Your task to perform on an android device: refresh tabs in the chrome app Image 0: 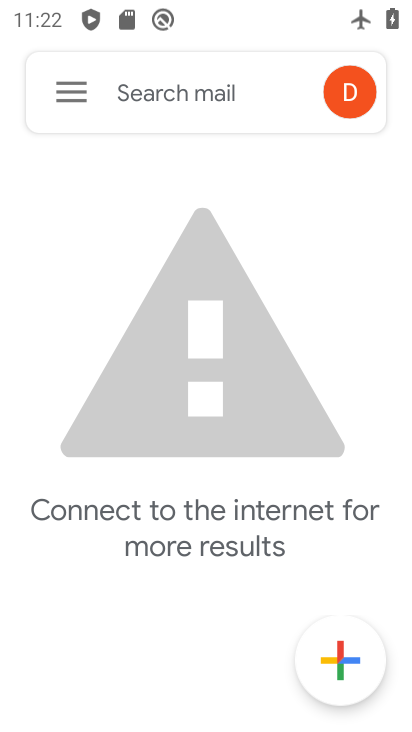
Step 0: press home button
Your task to perform on an android device: refresh tabs in the chrome app Image 1: 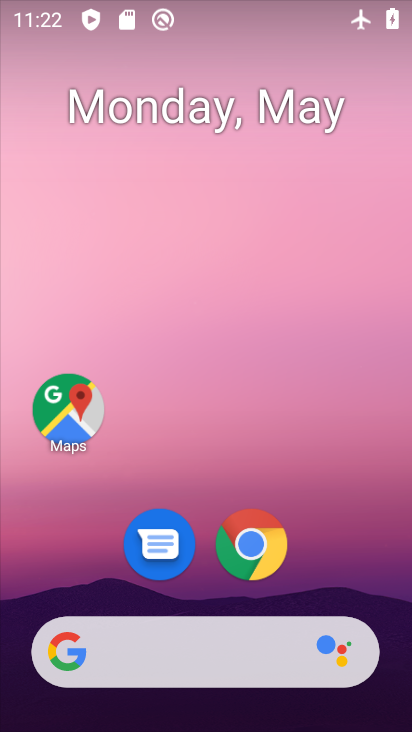
Step 1: click (253, 559)
Your task to perform on an android device: refresh tabs in the chrome app Image 2: 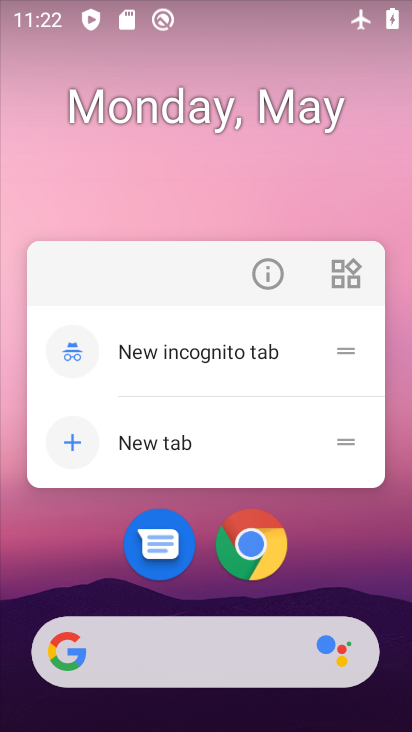
Step 2: click (257, 562)
Your task to perform on an android device: refresh tabs in the chrome app Image 3: 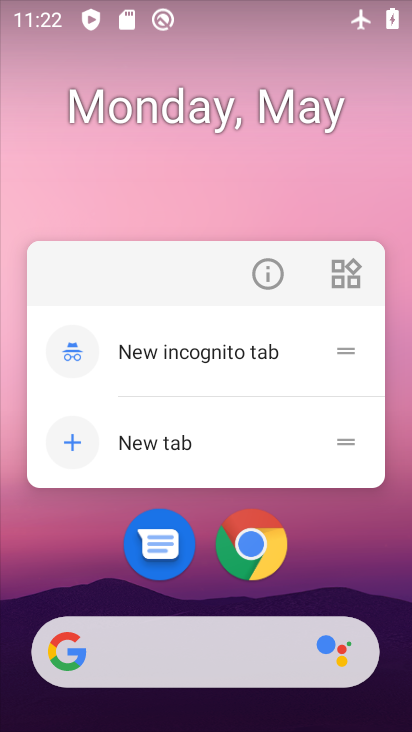
Step 3: click (262, 517)
Your task to perform on an android device: refresh tabs in the chrome app Image 4: 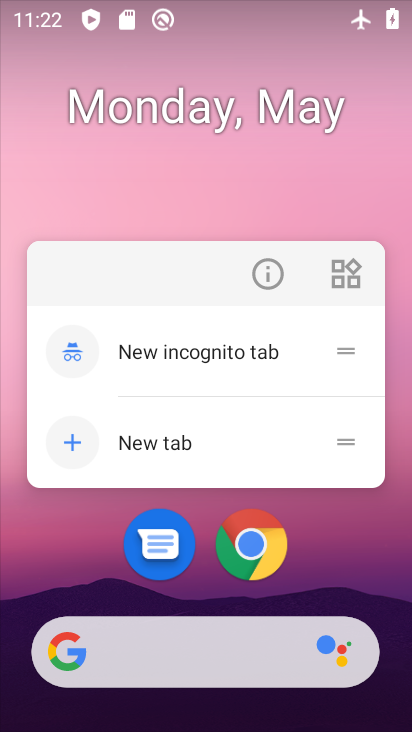
Step 4: click (256, 531)
Your task to perform on an android device: refresh tabs in the chrome app Image 5: 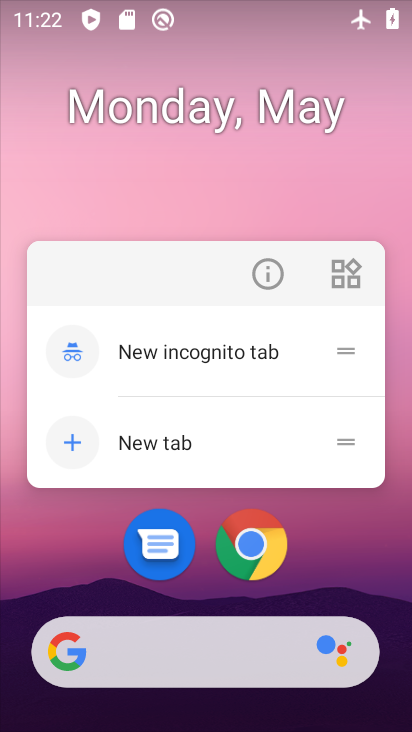
Step 5: click (249, 543)
Your task to perform on an android device: refresh tabs in the chrome app Image 6: 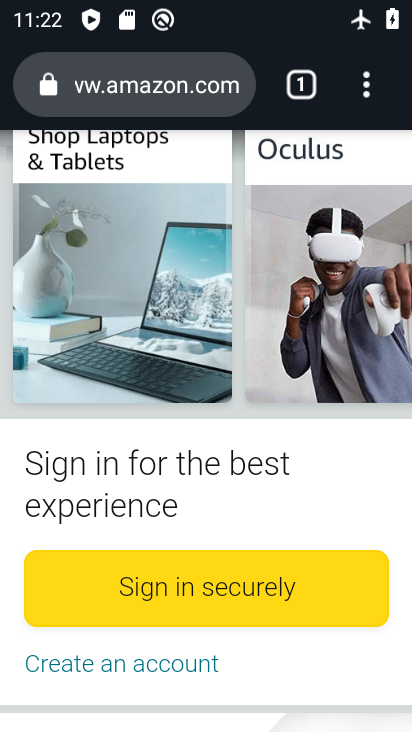
Step 6: click (370, 100)
Your task to perform on an android device: refresh tabs in the chrome app Image 7: 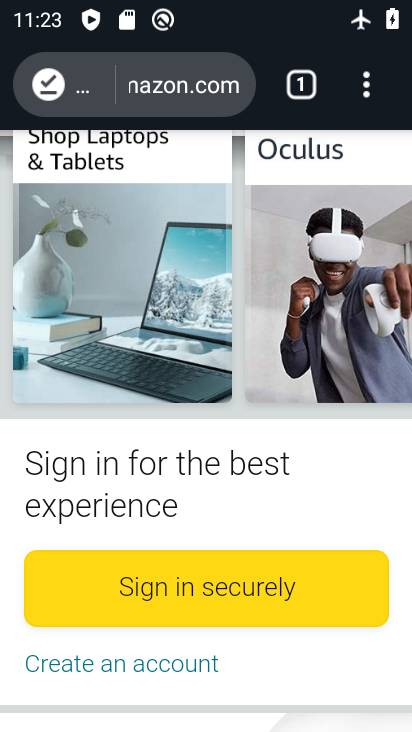
Step 7: task complete